Your task to perform on an android device: turn off improve location accuracy Image 0: 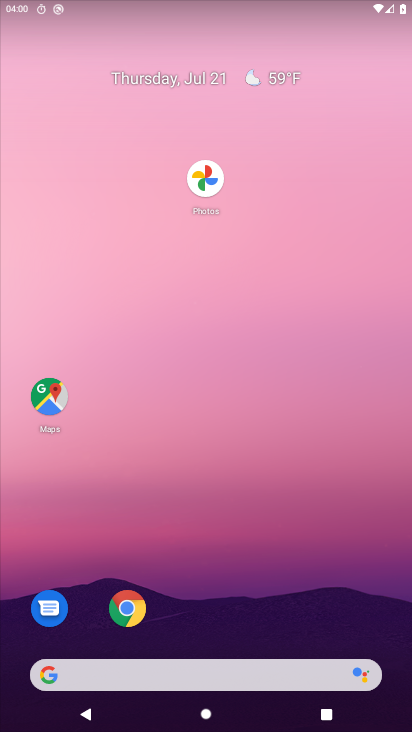
Step 0: drag from (211, 632) to (255, 99)
Your task to perform on an android device: turn off improve location accuracy Image 1: 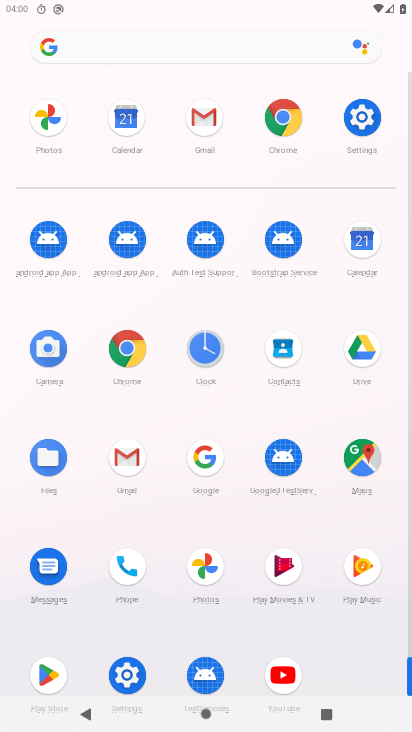
Step 1: click (131, 671)
Your task to perform on an android device: turn off improve location accuracy Image 2: 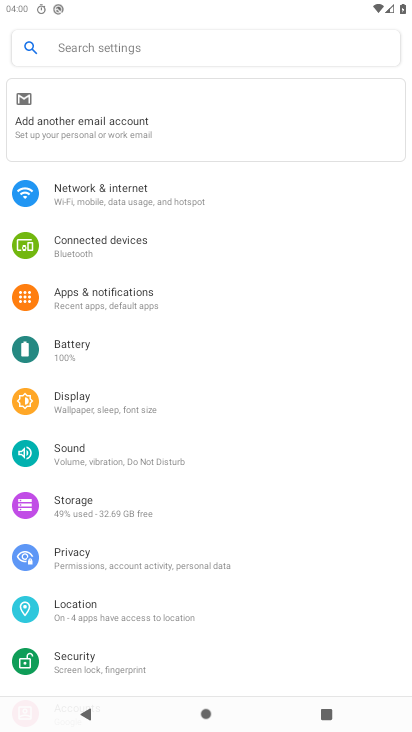
Step 2: click (104, 603)
Your task to perform on an android device: turn off improve location accuracy Image 3: 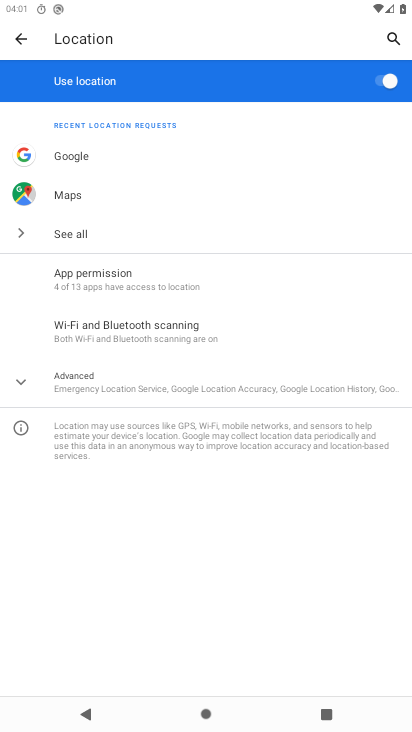
Step 3: click (15, 378)
Your task to perform on an android device: turn off improve location accuracy Image 4: 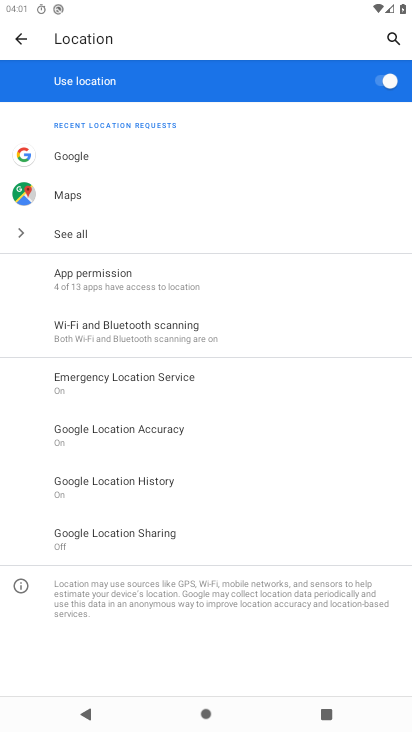
Step 4: click (121, 432)
Your task to perform on an android device: turn off improve location accuracy Image 5: 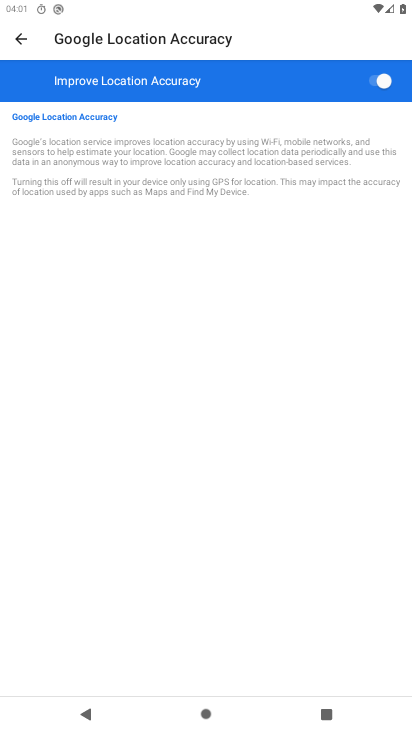
Step 5: click (375, 76)
Your task to perform on an android device: turn off improve location accuracy Image 6: 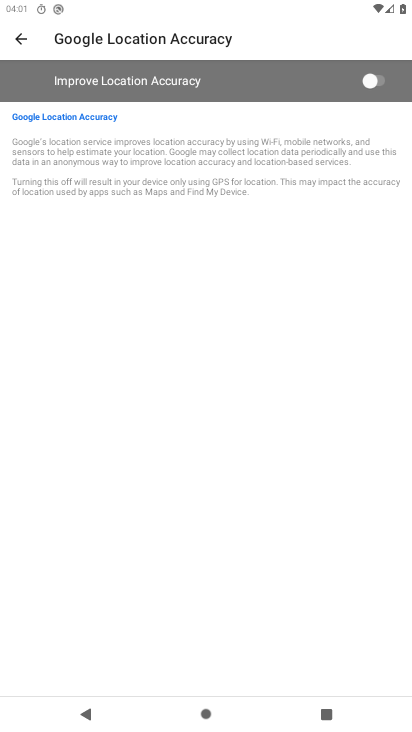
Step 6: task complete